Your task to perform on an android device: Open Youtube and go to "Your channel" Image 0: 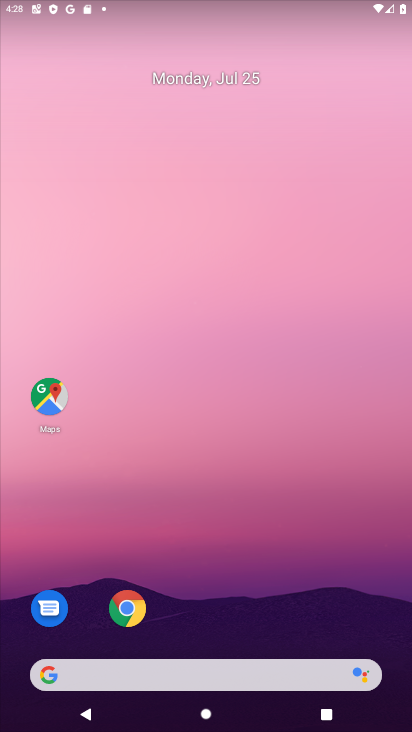
Step 0: drag from (223, 633) to (206, 68)
Your task to perform on an android device: Open Youtube and go to "Your channel" Image 1: 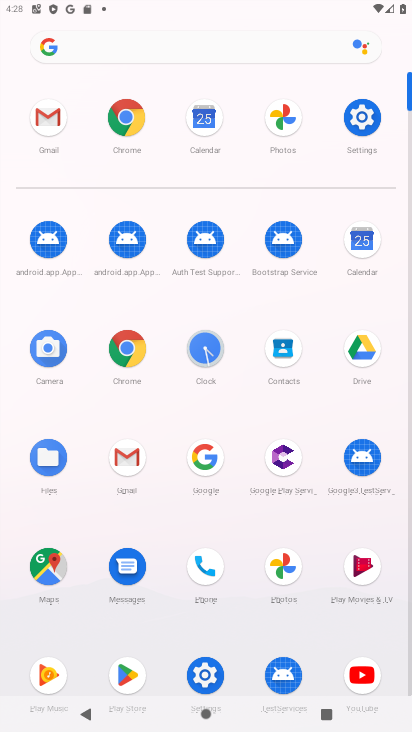
Step 1: click (358, 673)
Your task to perform on an android device: Open Youtube and go to "Your channel" Image 2: 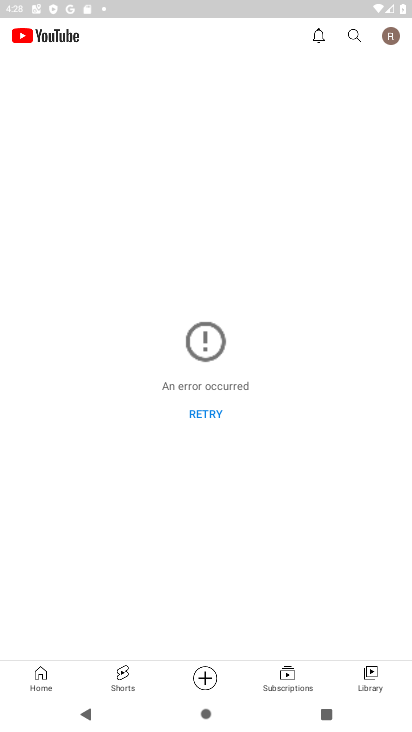
Step 2: click (365, 673)
Your task to perform on an android device: Open Youtube and go to "Your channel" Image 3: 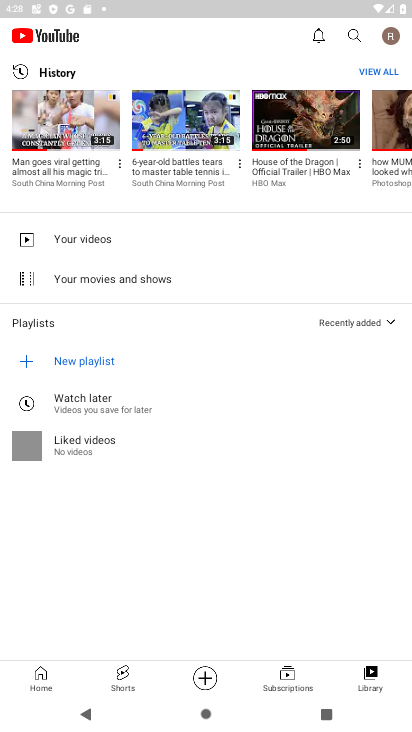
Step 3: click (387, 36)
Your task to perform on an android device: Open Youtube and go to "Your channel" Image 4: 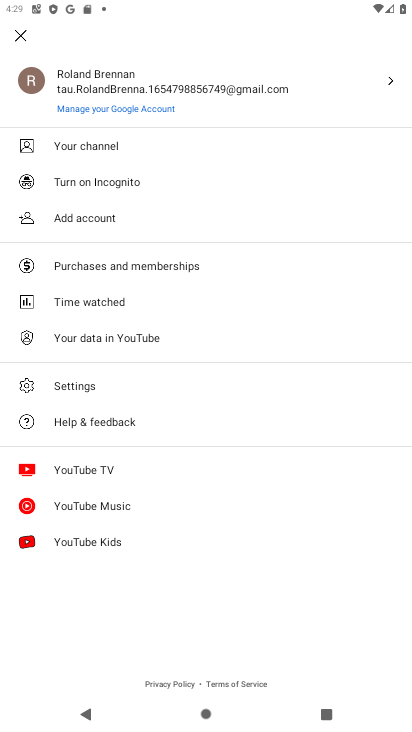
Step 4: click (106, 146)
Your task to perform on an android device: Open Youtube and go to "Your channel" Image 5: 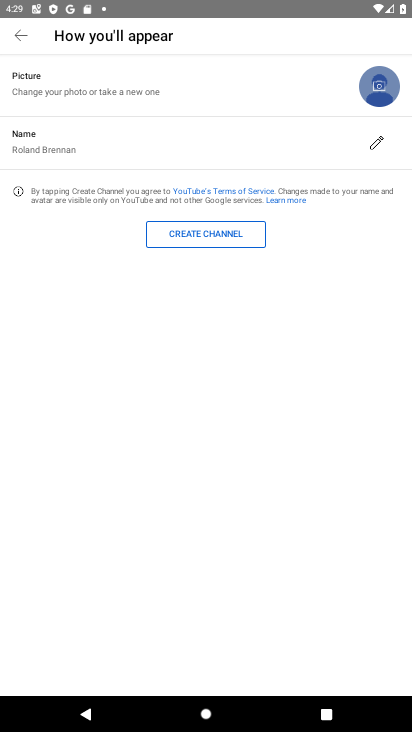
Step 5: task complete